Your task to perform on an android device: find which apps use the phone's location Image 0: 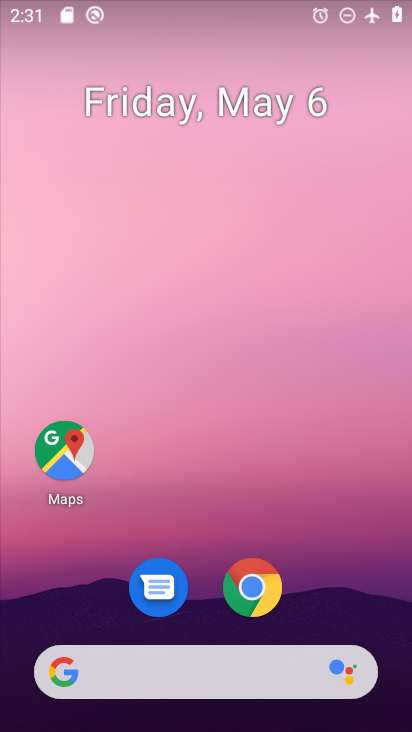
Step 0: drag from (324, 559) to (324, 229)
Your task to perform on an android device: find which apps use the phone's location Image 1: 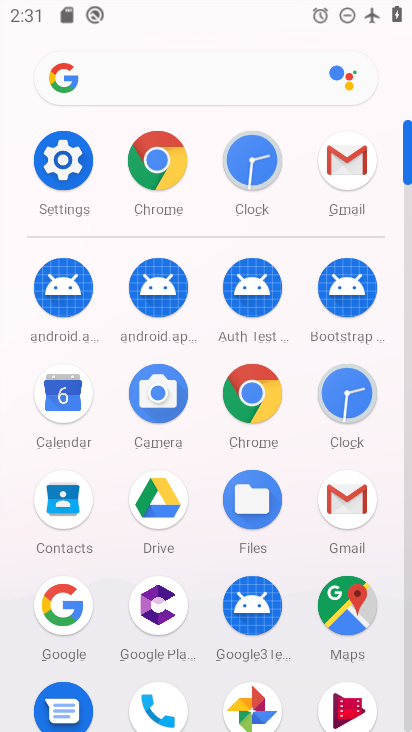
Step 1: click (79, 143)
Your task to perform on an android device: find which apps use the phone's location Image 2: 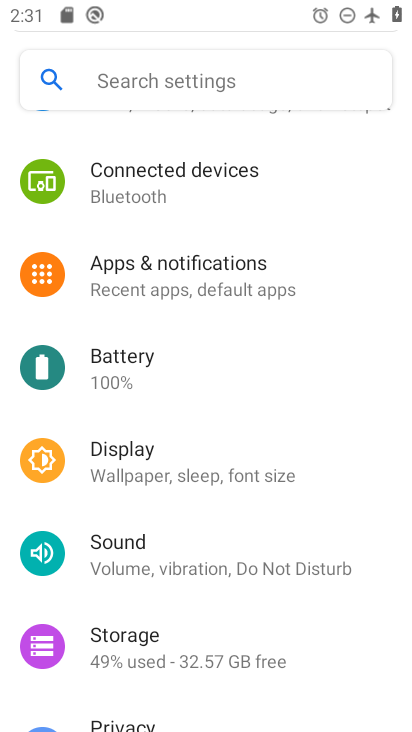
Step 2: drag from (222, 551) to (251, 177)
Your task to perform on an android device: find which apps use the phone's location Image 3: 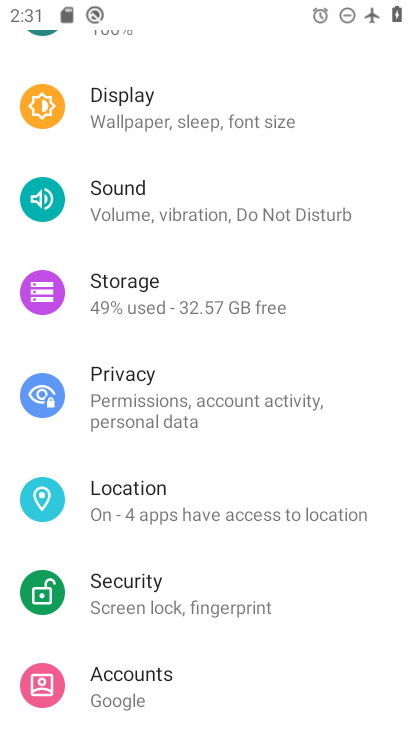
Step 3: click (209, 502)
Your task to perform on an android device: find which apps use the phone's location Image 4: 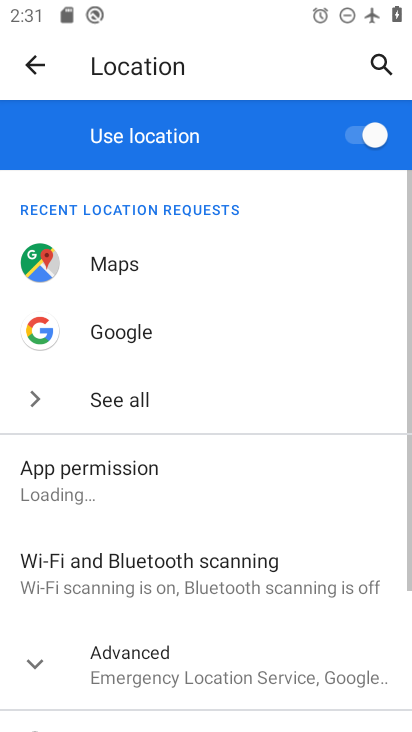
Step 4: click (133, 469)
Your task to perform on an android device: find which apps use the phone's location Image 5: 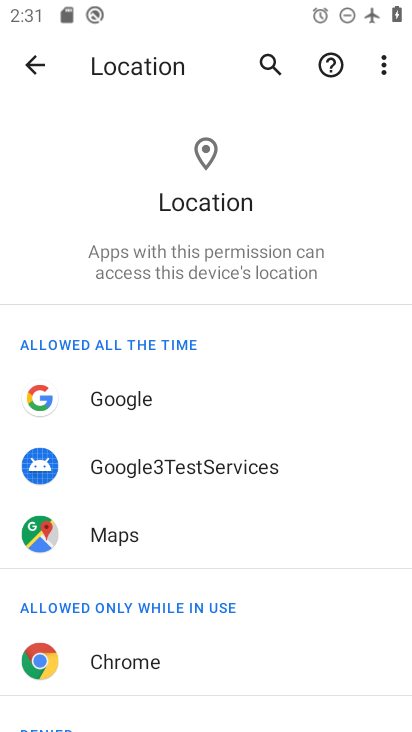
Step 5: task complete